Your task to perform on an android device: Open maps Image 0: 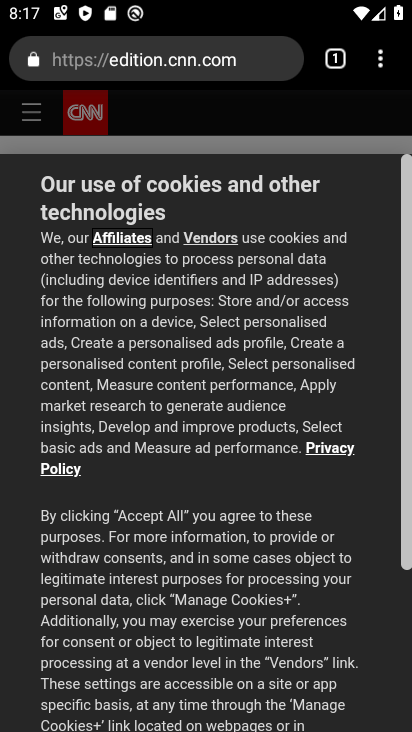
Step 0: press home button
Your task to perform on an android device: Open maps Image 1: 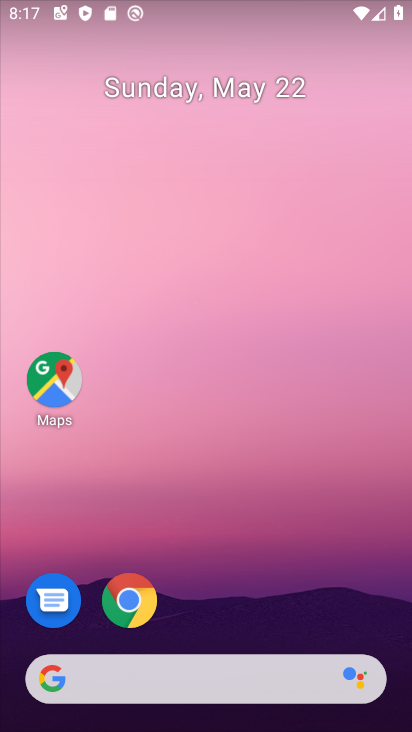
Step 1: click (68, 382)
Your task to perform on an android device: Open maps Image 2: 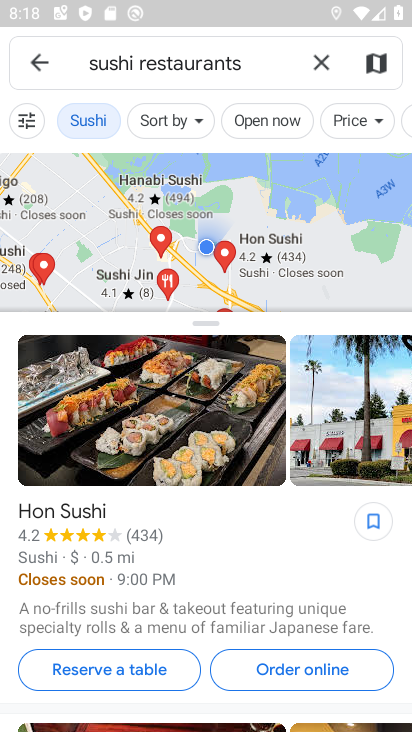
Step 2: task complete